Your task to perform on an android device: Open Google Maps Image 0: 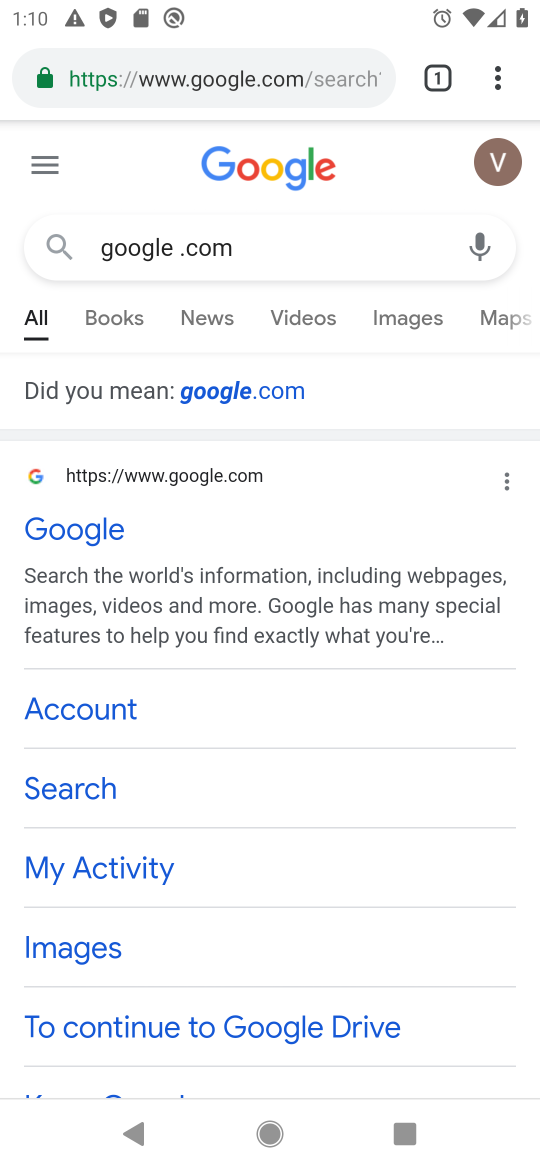
Step 0: click (274, 91)
Your task to perform on an android device: Open Google Maps Image 1: 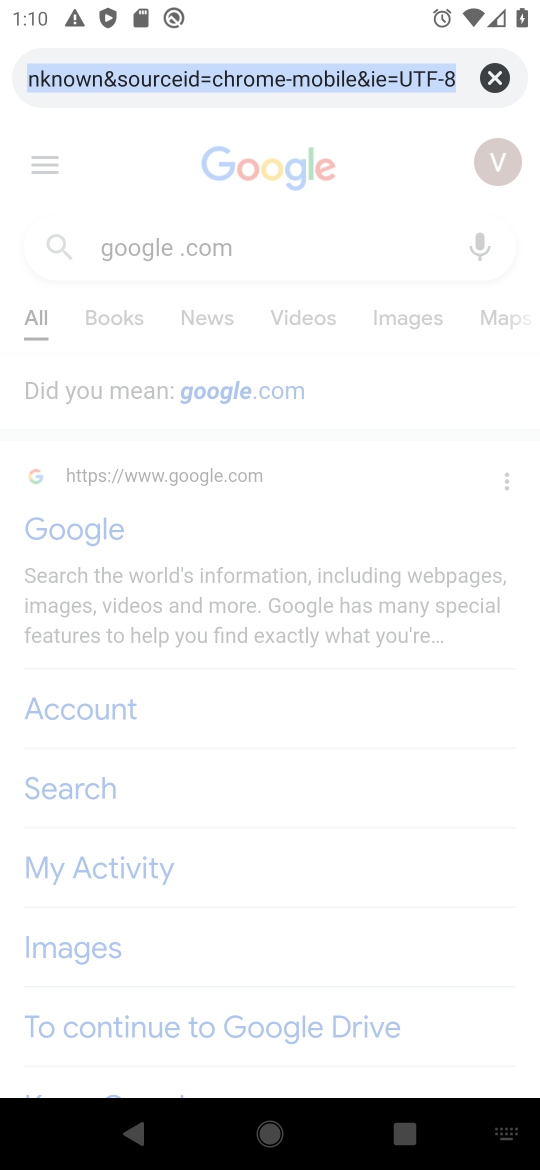
Step 1: type "reddit.com"
Your task to perform on an android device: Open Google Maps Image 2: 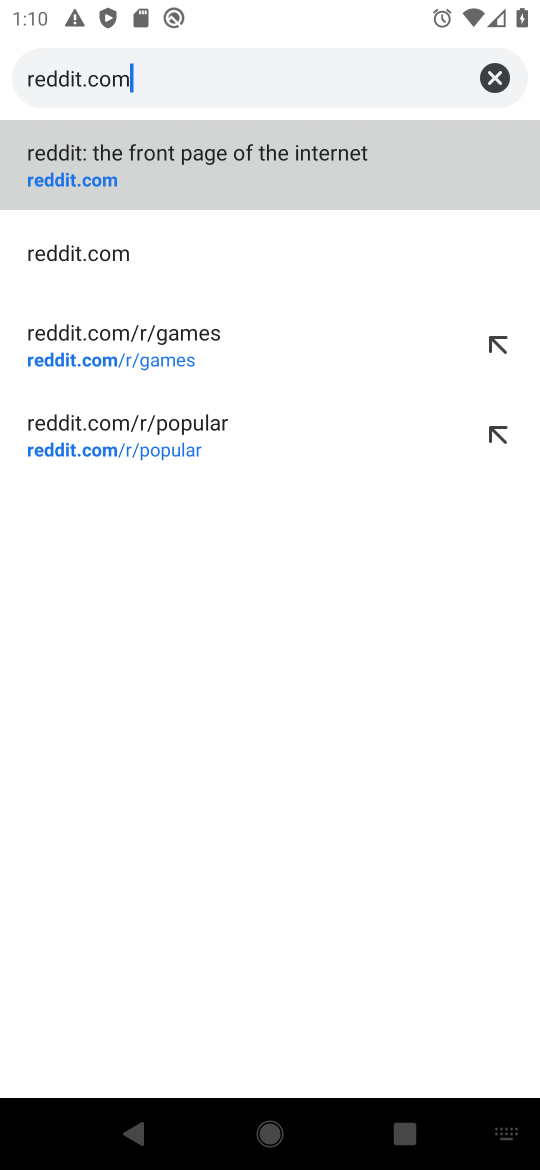
Step 2: click (179, 178)
Your task to perform on an android device: Open Google Maps Image 3: 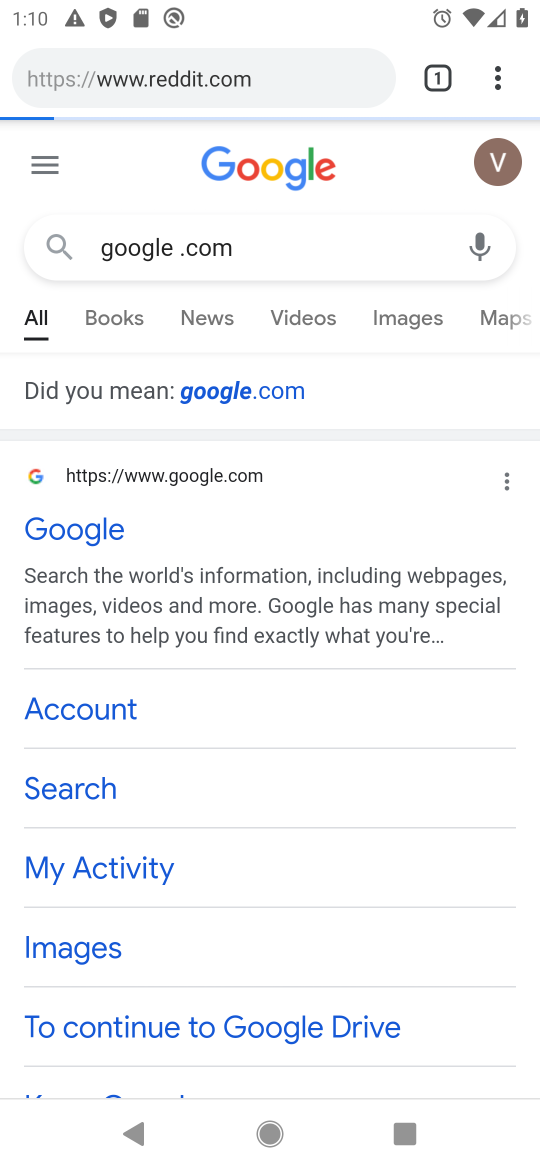
Step 3: task complete